Your task to perform on an android device: Search for logitech g903 on target, select the first entry, add it to the cart, then select checkout. Image 0: 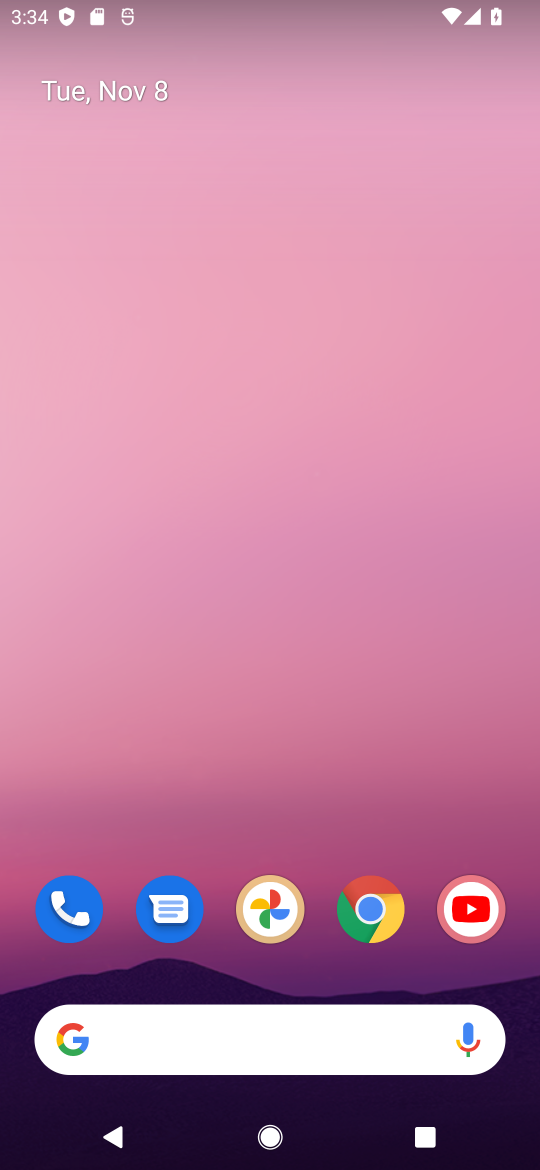
Step 0: press home button
Your task to perform on an android device: Search for logitech g903 on target, select the first entry, add it to the cart, then select checkout. Image 1: 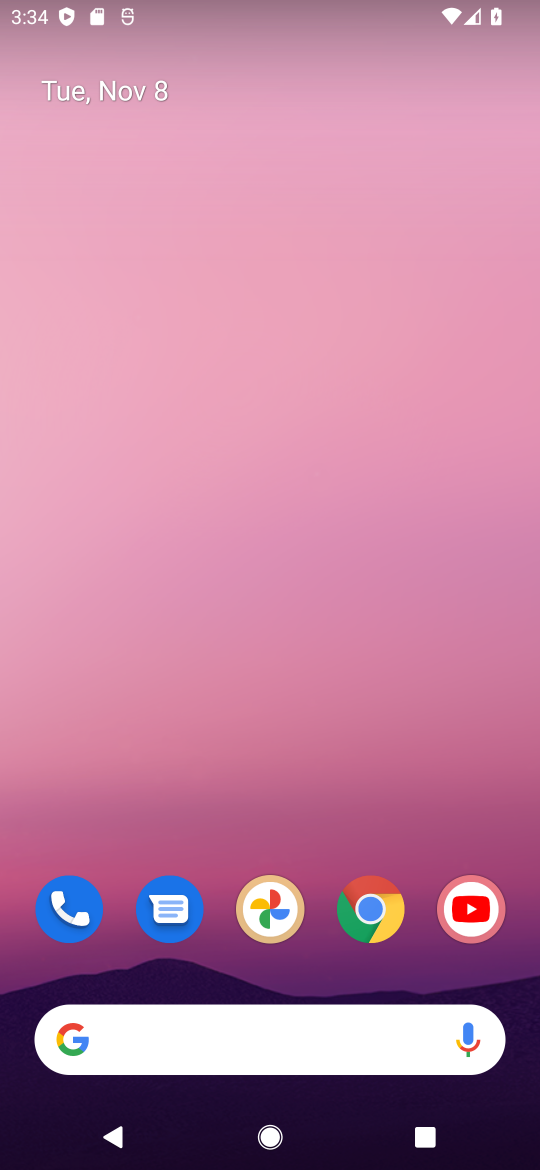
Step 1: click (366, 915)
Your task to perform on an android device: Search for logitech g903 on target, select the first entry, add it to the cart, then select checkout. Image 2: 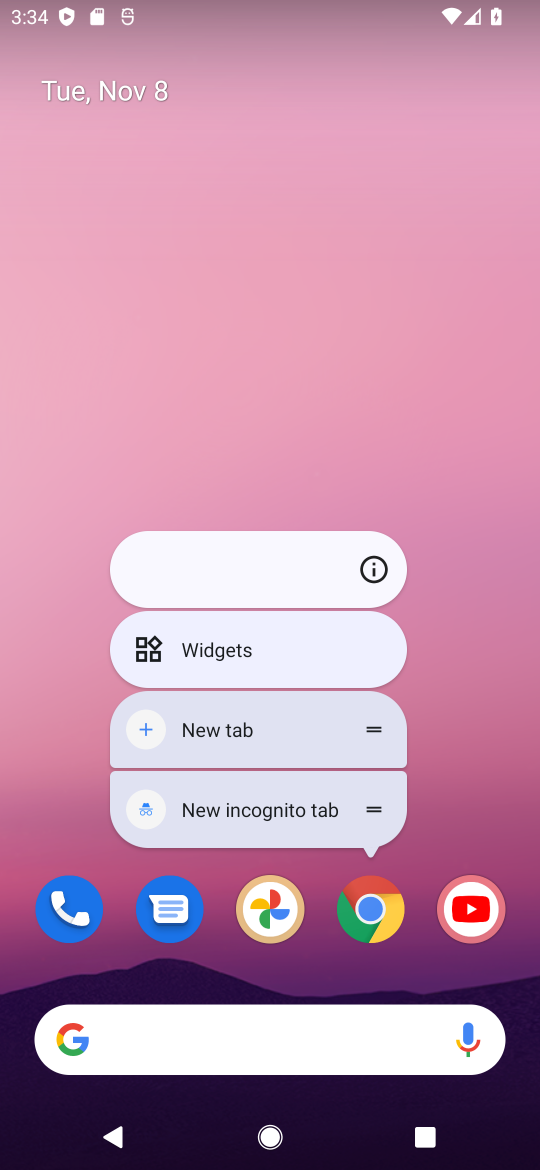
Step 2: click (374, 905)
Your task to perform on an android device: Search for logitech g903 on target, select the first entry, add it to the cart, then select checkout. Image 3: 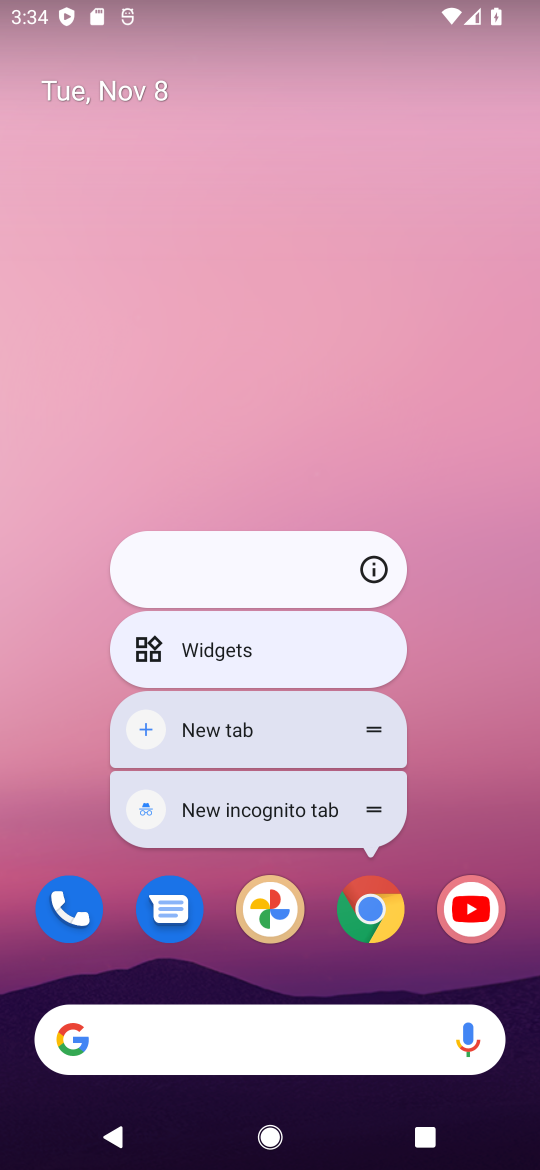
Step 3: click (374, 908)
Your task to perform on an android device: Search for logitech g903 on target, select the first entry, add it to the cart, then select checkout. Image 4: 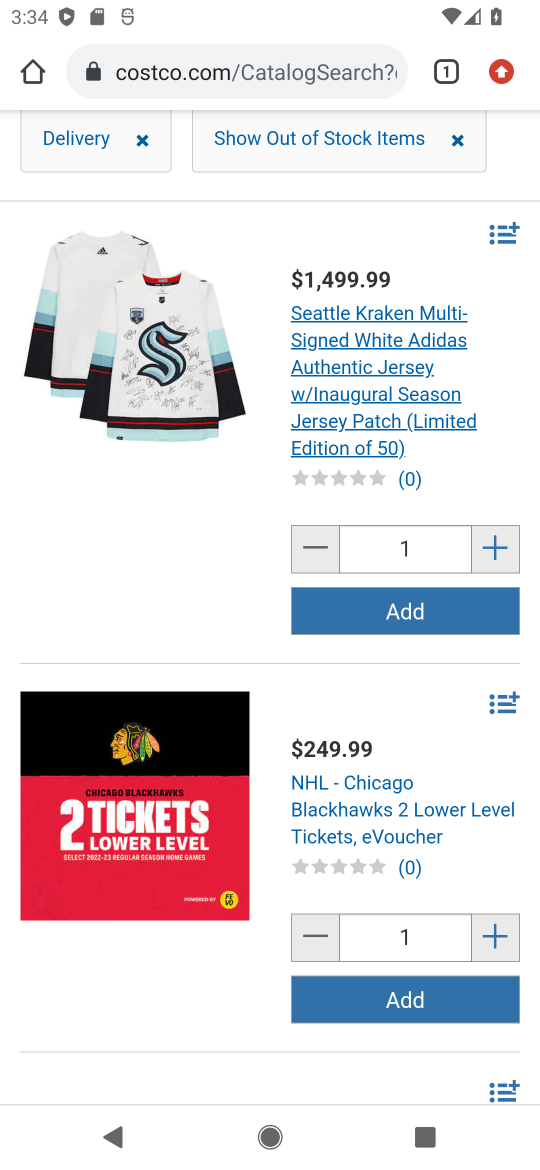
Step 4: click (213, 67)
Your task to perform on an android device: Search for logitech g903 on target, select the first entry, add it to the cart, then select checkout. Image 5: 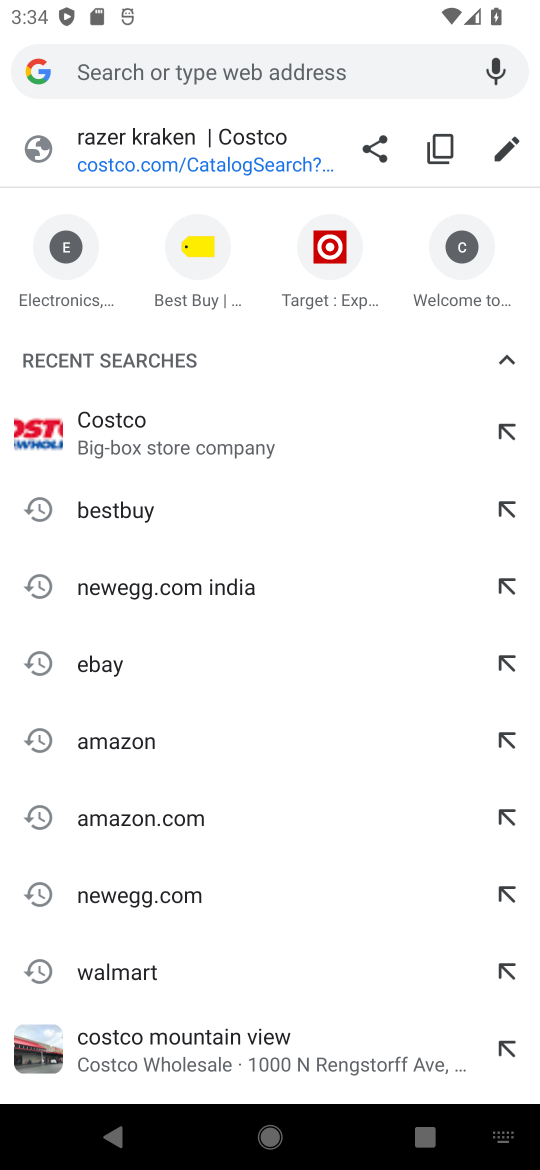
Step 5: click (328, 248)
Your task to perform on an android device: Search for logitech g903 on target, select the first entry, add it to the cart, then select checkout. Image 6: 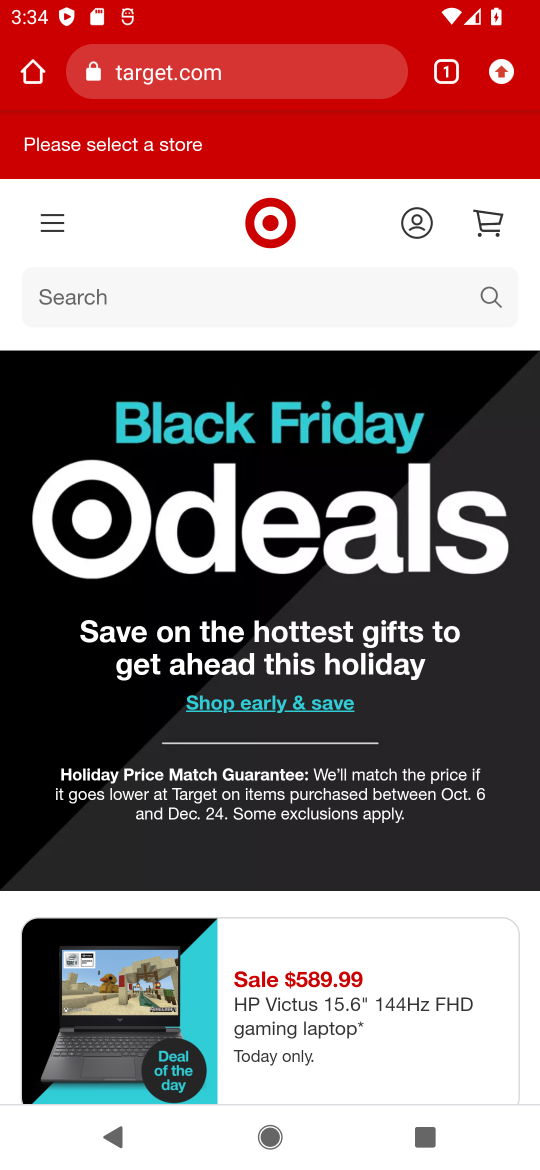
Step 6: click (101, 296)
Your task to perform on an android device: Search for logitech g903 on target, select the first entry, add it to the cart, then select checkout. Image 7: 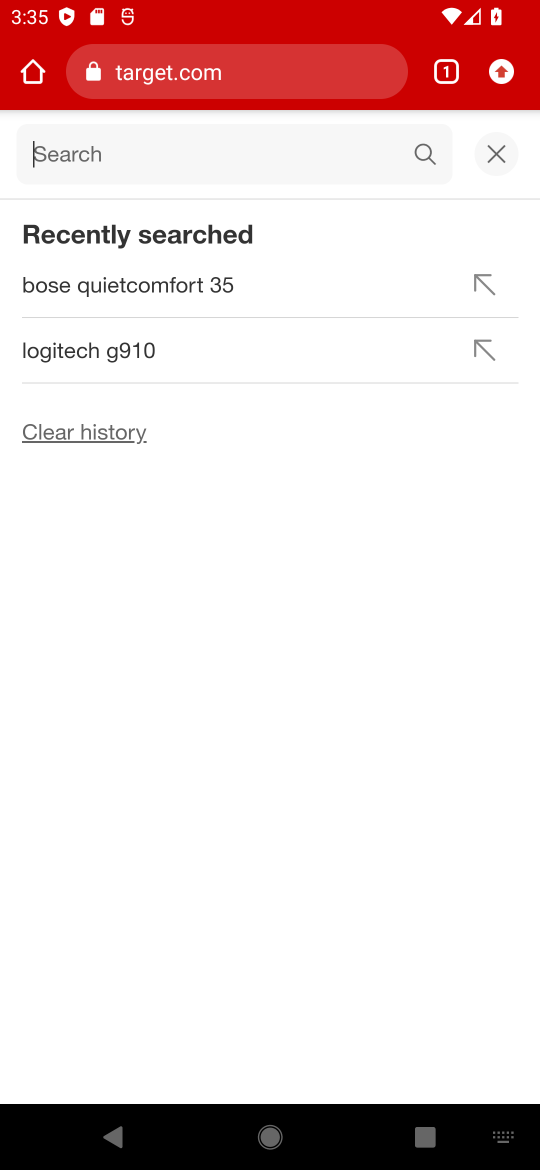
Step 7: type "logitech g903"
Your task to perform on an android device: Search for logitech g903 on target, select the first entry, add it to the cart, then select checkout. Image 8: 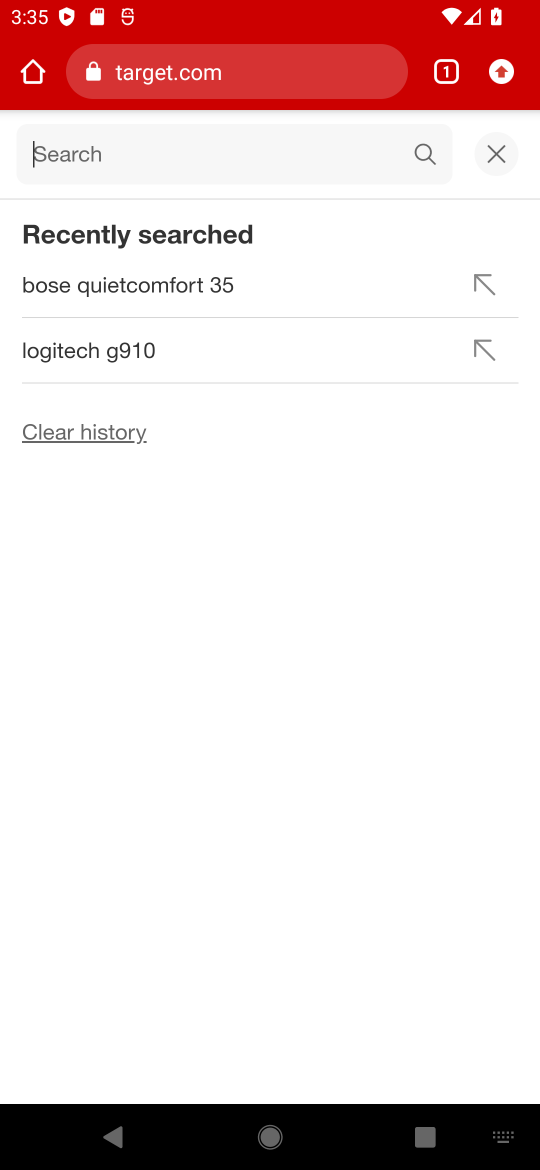
Step 8: press enter
Your task to perform on an android device: Search for logitech g903 on target, select the first entry, add it to the cart, then select checkout. Image 9: 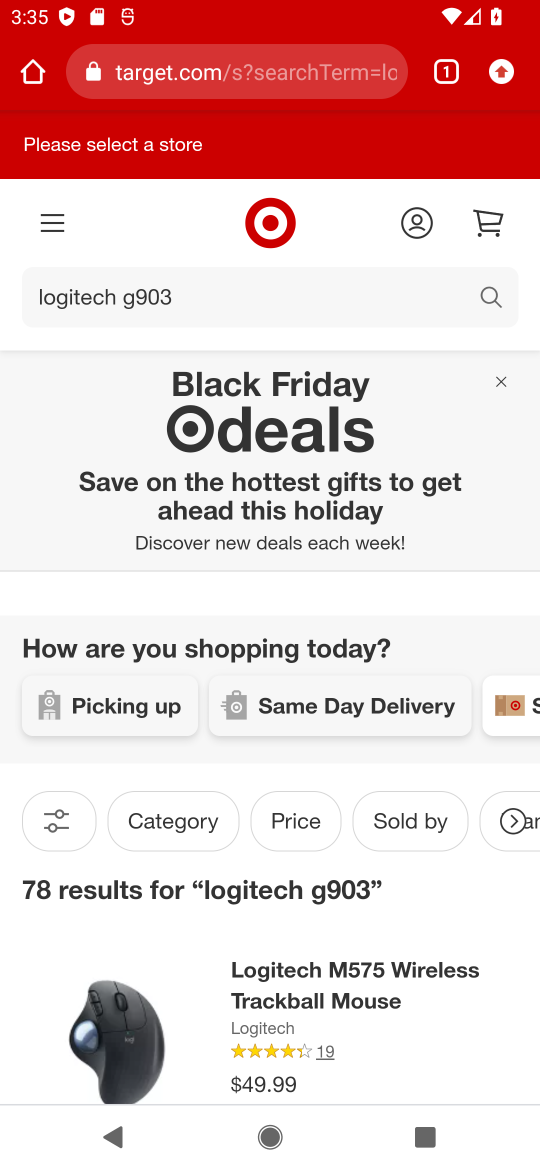
Step 9: task complete